Your task to perform on an android device: delete a single message in the gmail app Image 0: 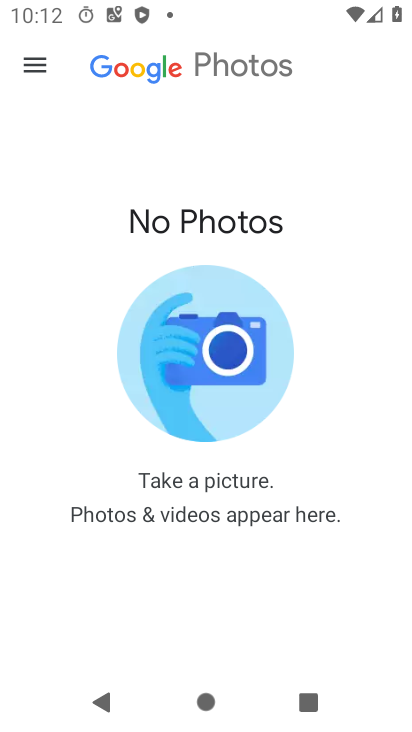
Step 0: press home button
Your task to perform on an android device: delete a single message in the gmail app Image 1: 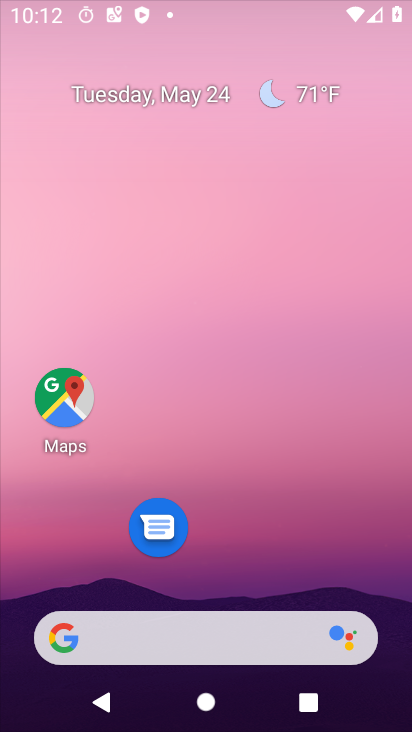
Step 1: drag from (245, 568) to (284, 46)
Your task to perform on an android device: delete a single message in the gmail app Image 2: 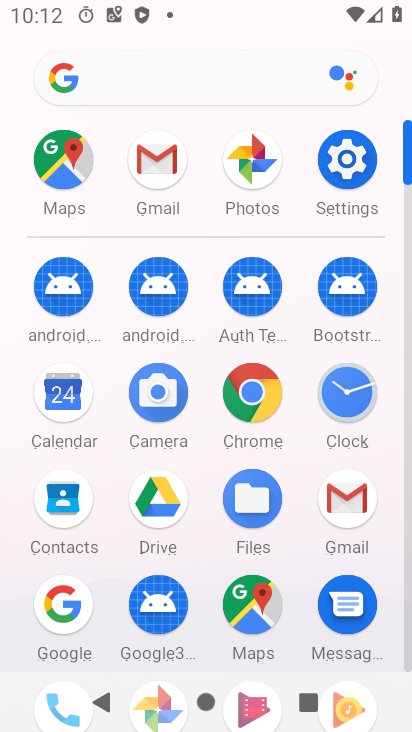
Step 2: click (160, 161)
Your task to perform on an android device: delete a single message in the gmail app Image 3: 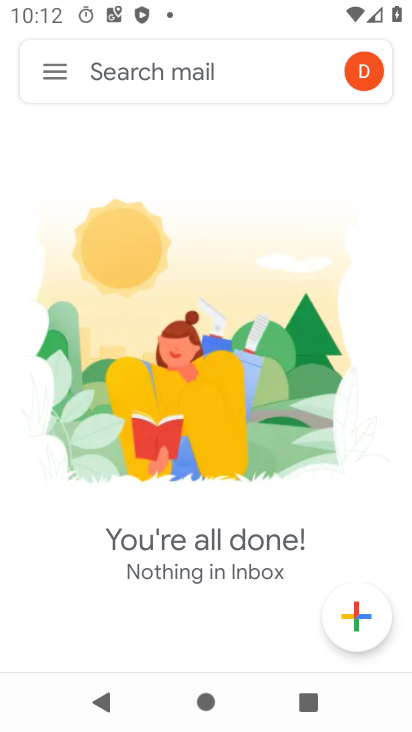
Step 3: click (59, 70)
Your task to perform on an android device: delete a single message in the gmail app Image 4: 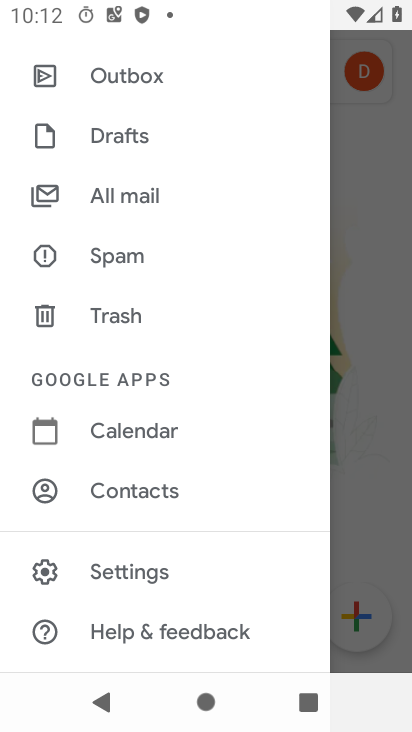
Step 4: click (117, 201)
Your task to perform on an android device: delete a single message in the gmail app Image 5: 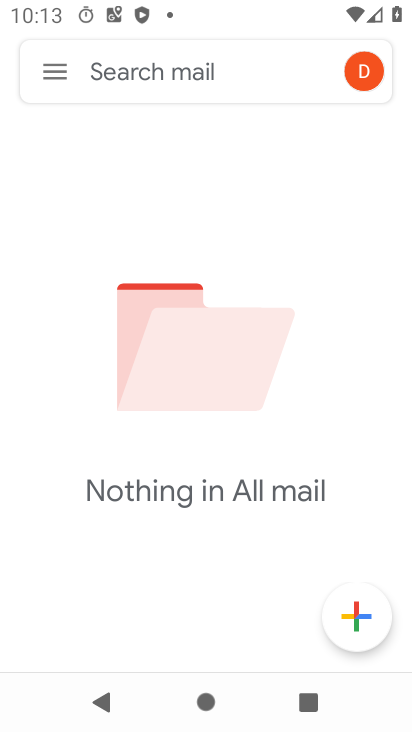
Step 5: task complete